Your task to perform on an android device: turn pop-ups off in chrome Image 0: 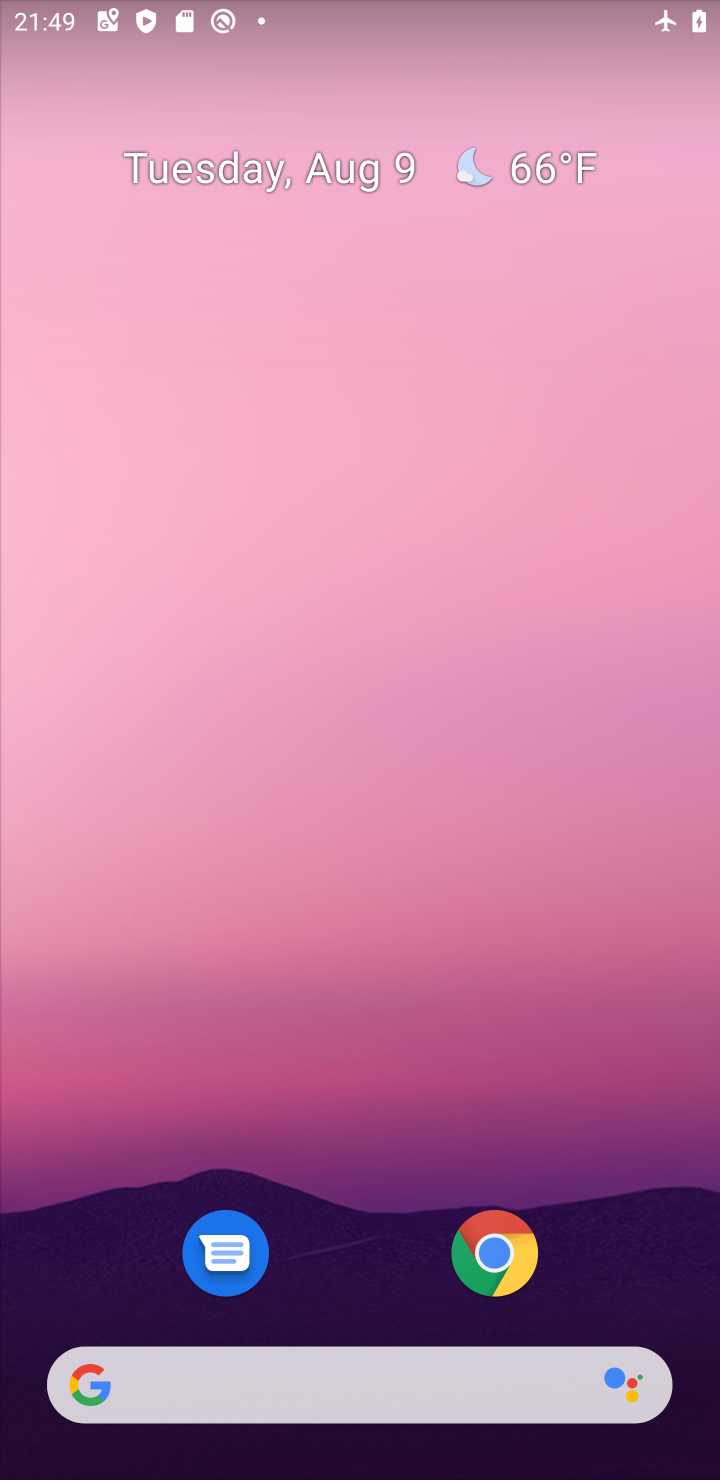
Step 0: drag from (365, 1290) to (420, 232)
Your task to perform on an android device: turn pop-ups off in chrome Image 1: 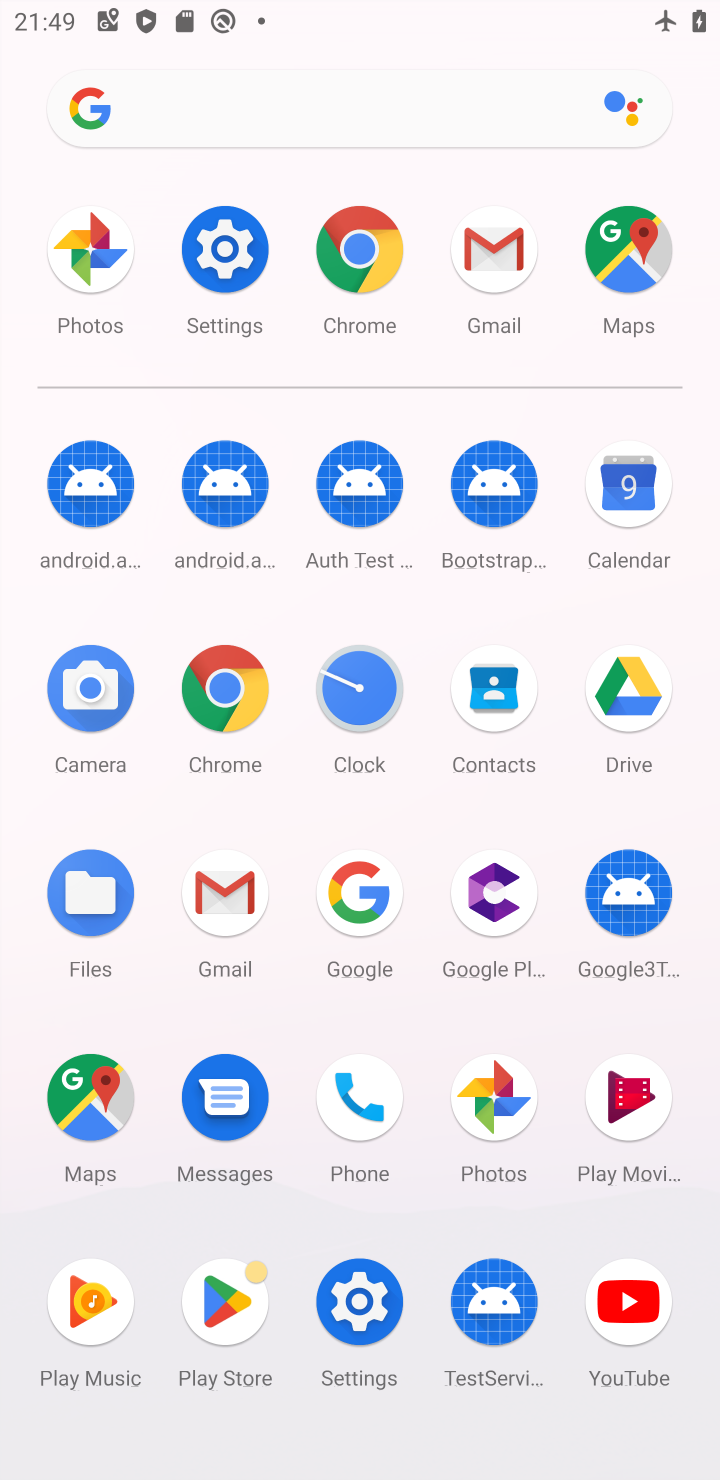
Step 1: click (226, 685)
Your task to perform on an android device: turn pop-ups off in chrome Image 2: 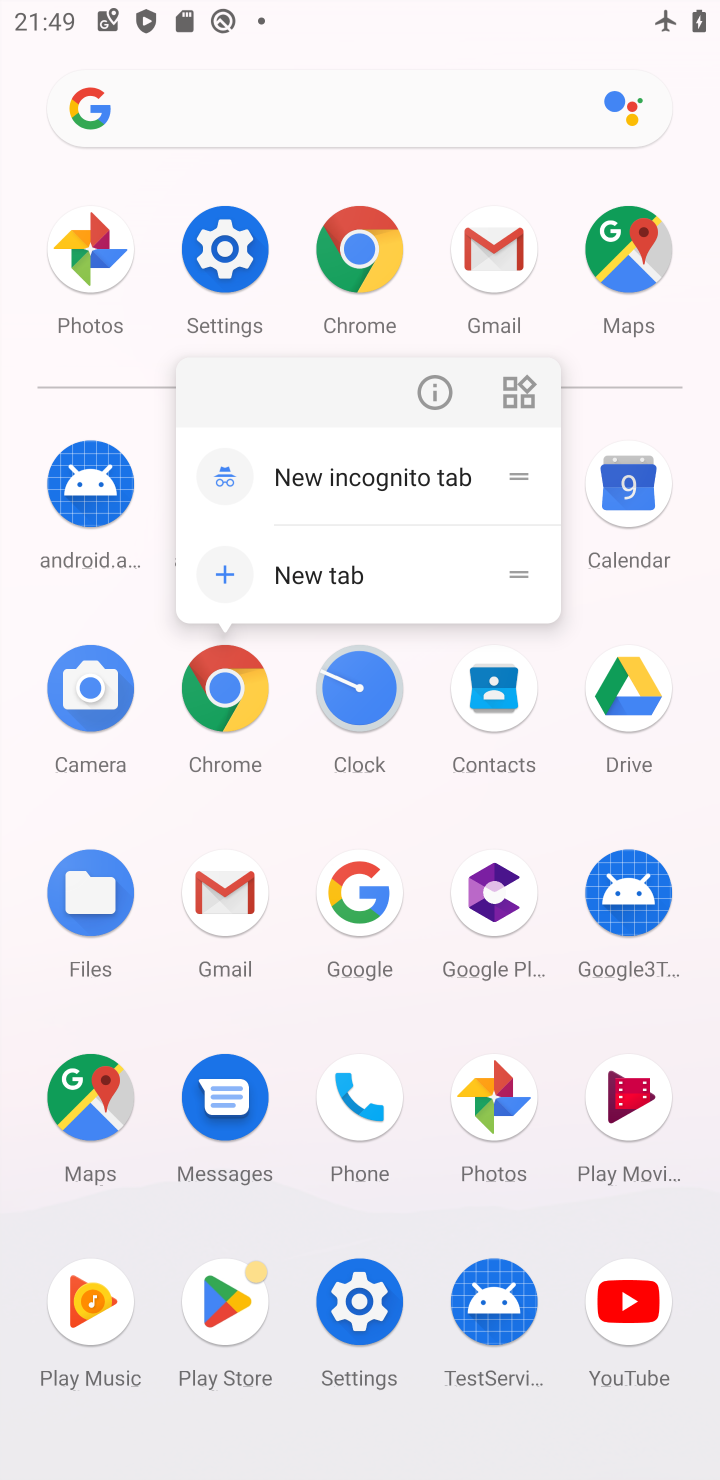
Step 2: click (226, 690)
Your task to perform on an android device: turn pop-ups off in chrome Image 3: 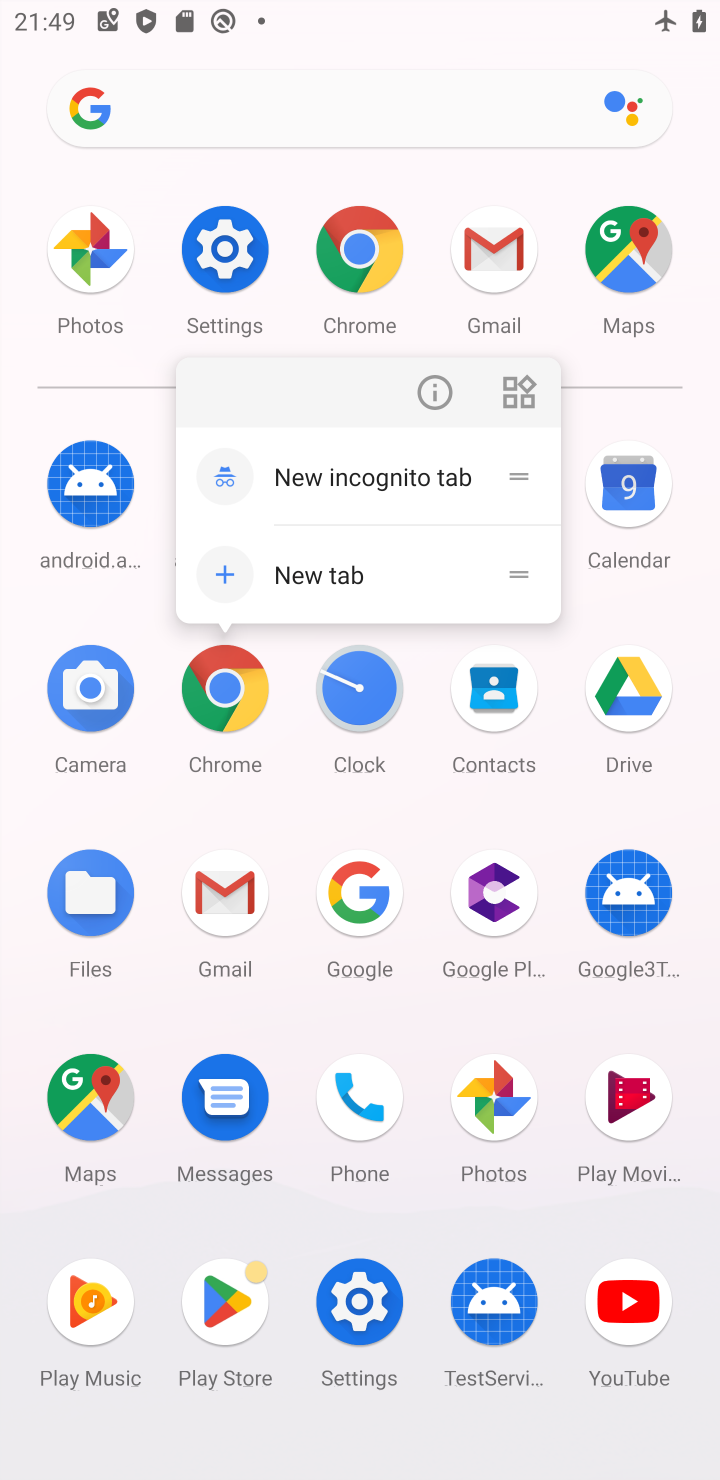
Step 3: click (226, 690)
Your task to perform on an android device: turn pop-ups off in chrome Image 4: 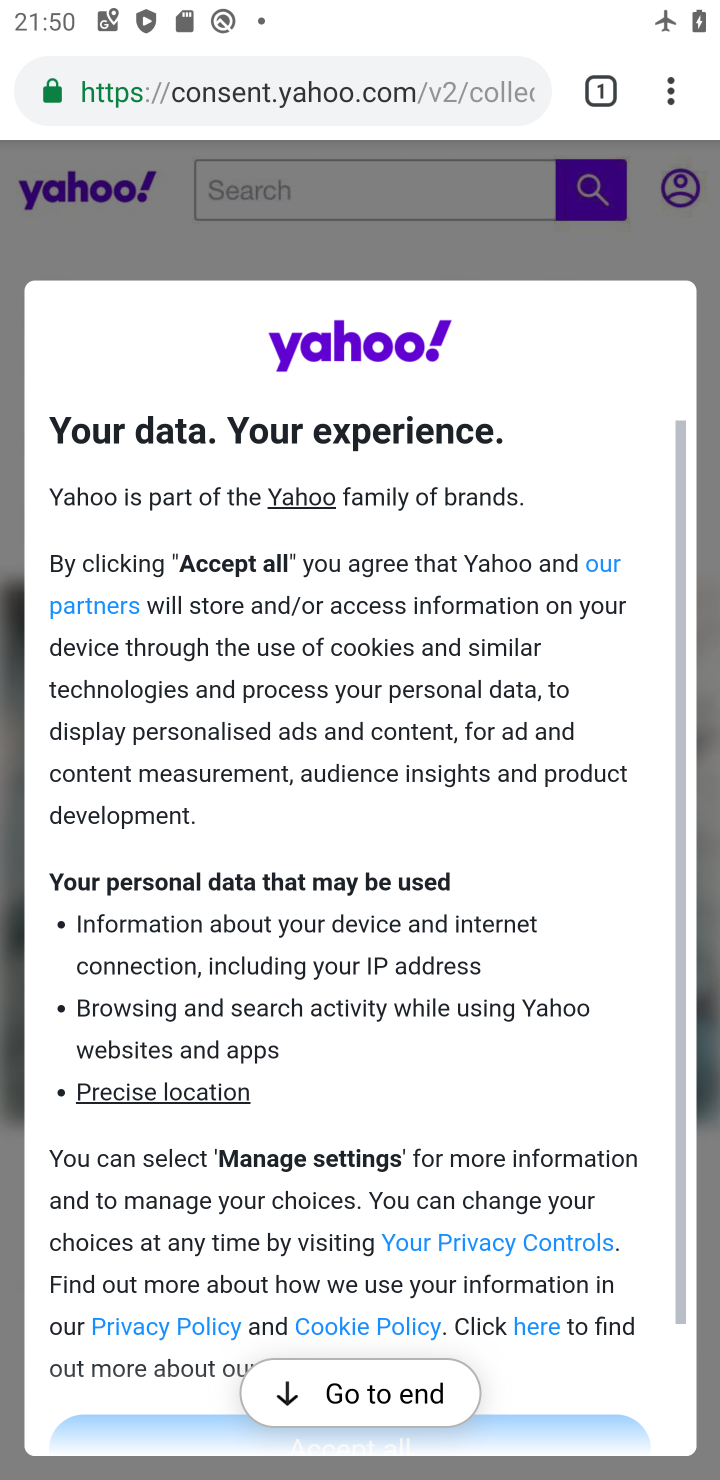
Step 4: drag from (683, 80) to (343, 1013)
Your task to perform on an android device: turn pop-ups off in chrome Image 5: 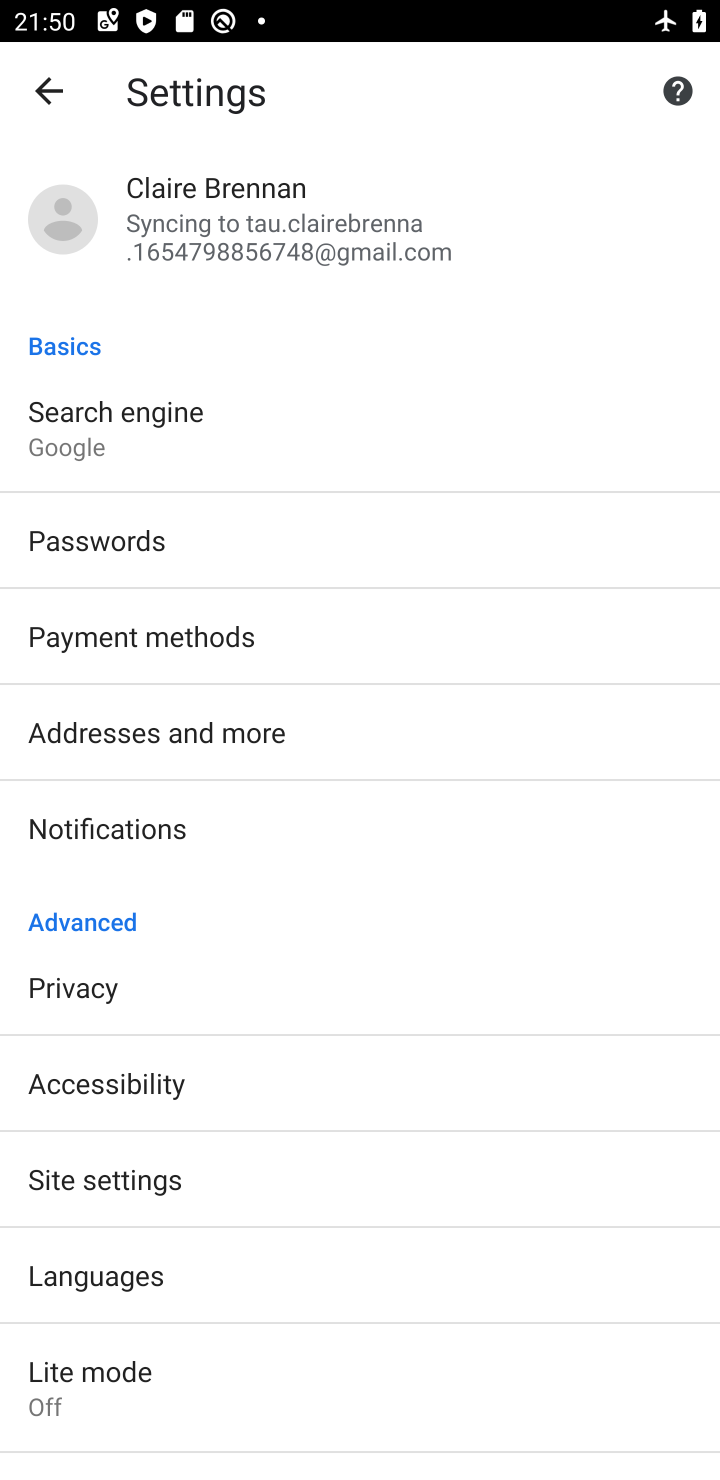
Step 5: click (129, 1191)
Your task to perform on an android device: turn pop-ups off in chrome Image 6: 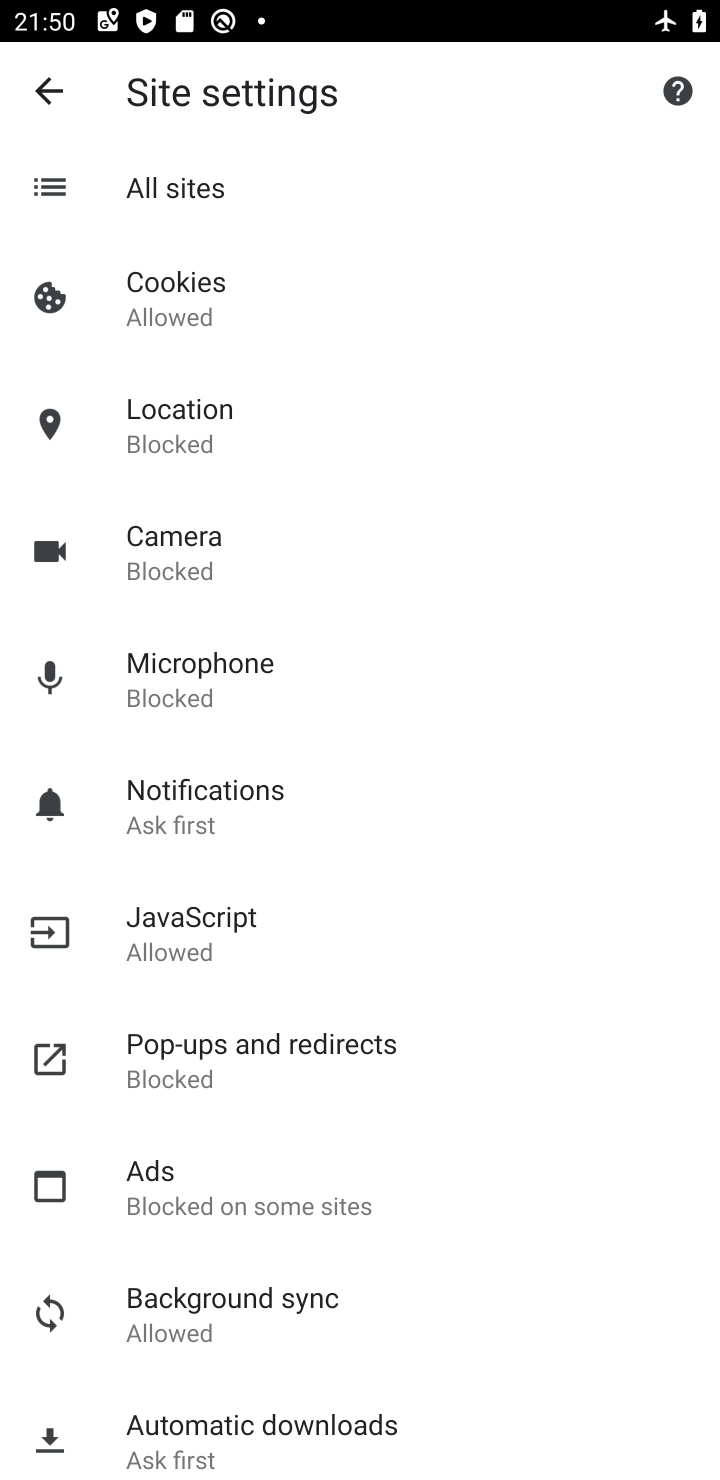
Step 6: click (161, 1079)
Your task to perform on an android device: turn pop-ups off in chrome Image 7: 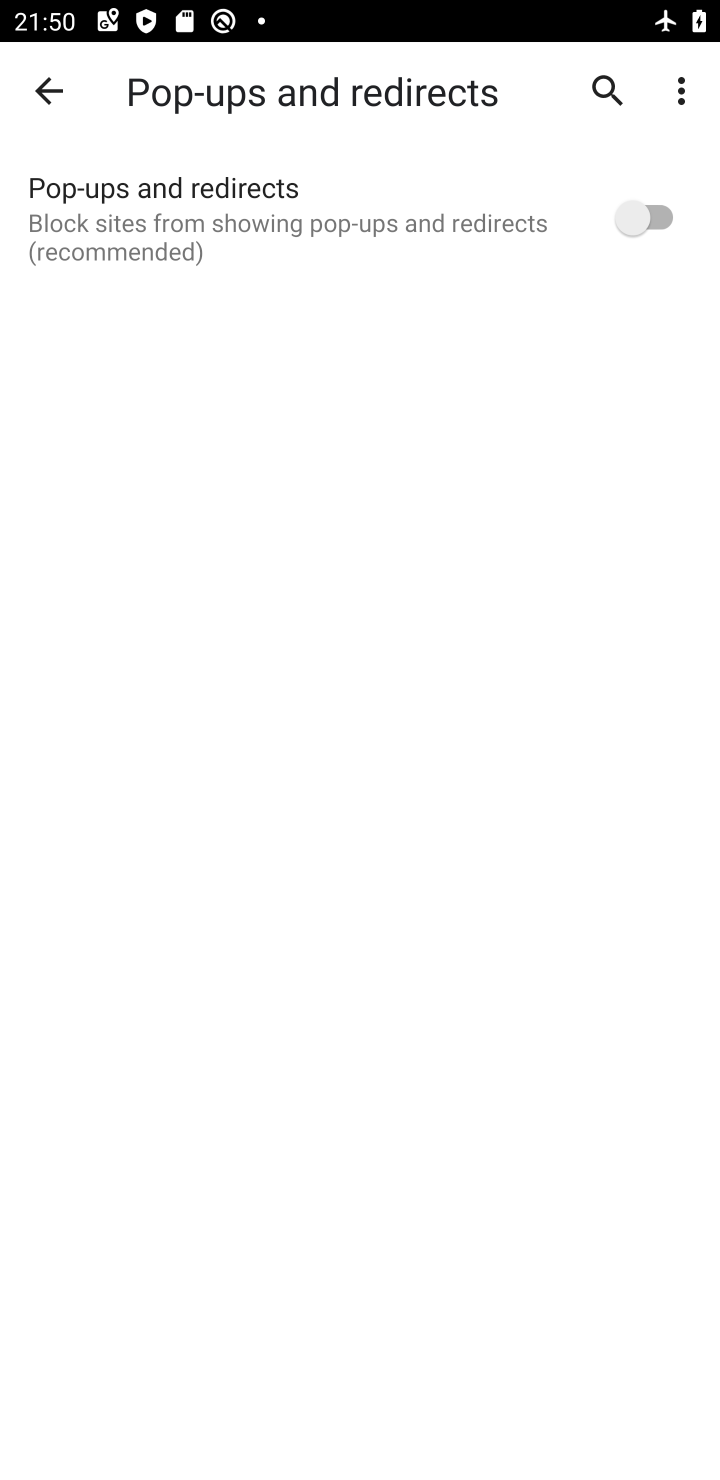
Step 7: task complete